Your task to perform on an android device: find snoozed emails in the gmail app Image 0: 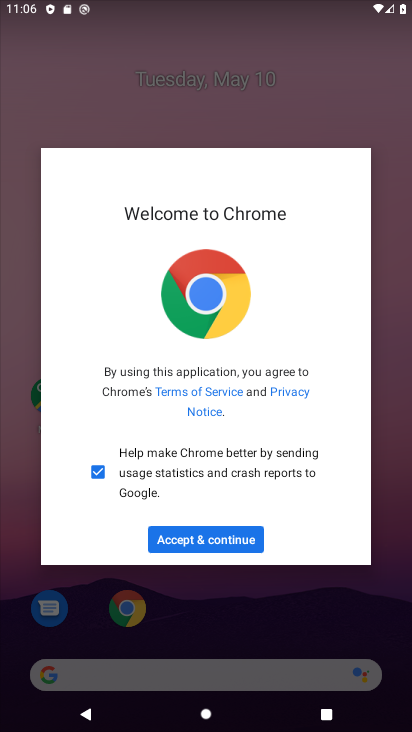
Step 0: press home button
Your task to perform on an android device: find snoozed emails in the gmail app Image 1: 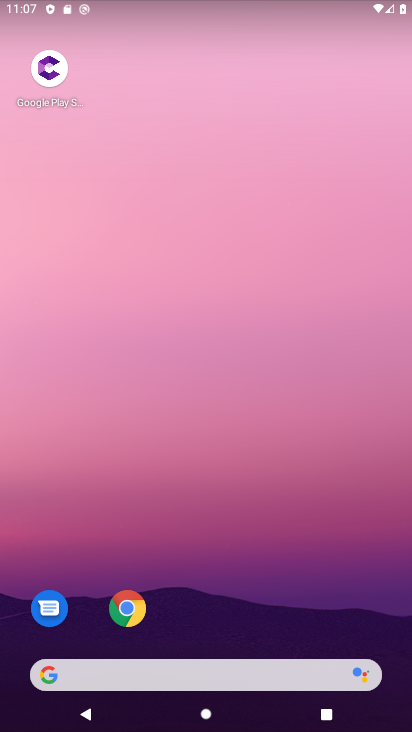
Step 1: drag from (273, 539) to (227, 42)
Your task to perform on an android device: find snoozed emails in the gmail app Image 2: 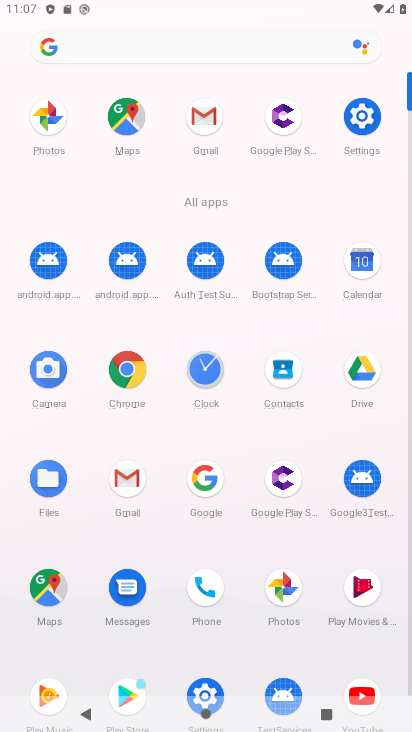
Step 2: click (211, 107)
Your task to perform on an android device: find snoozed emails in the gmail app Image 3: 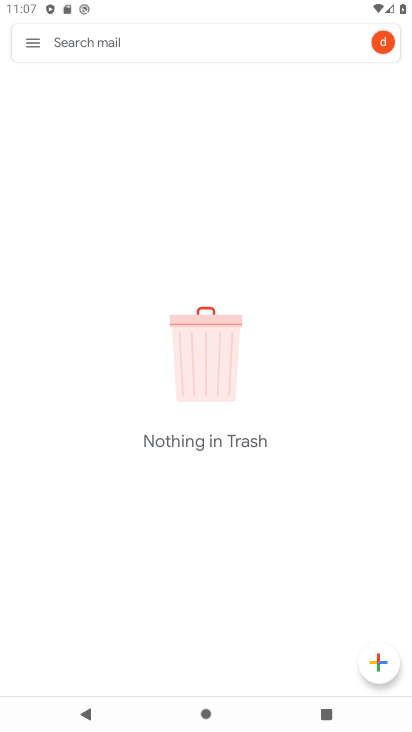
Step 3: click (29, 36)
Your task to perform on an android device: find snoozed emails in the gmail app Image 4: 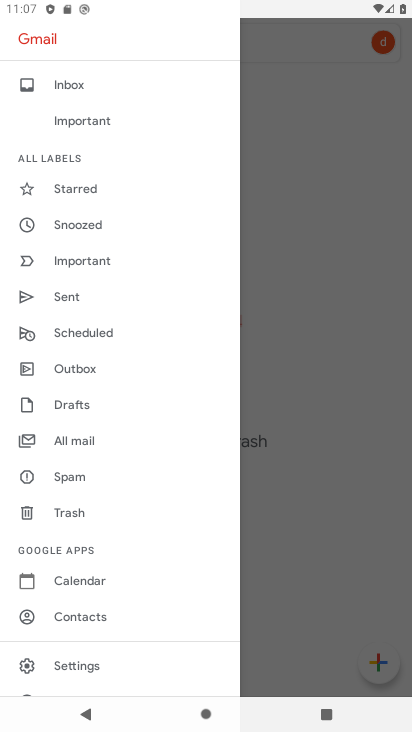
Step 4: click (85, 218)
Your task to perform on an android device: find snoozed emails in the gmail app Image 5: 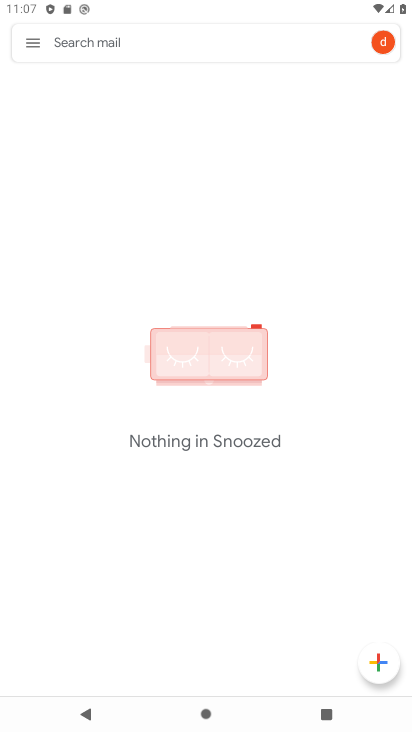
Step 5: task complete